Your task to perform on an android device: Search for "jbl charge 4" on ebay.com, select the first entry, and add it to the cart. Image 0: 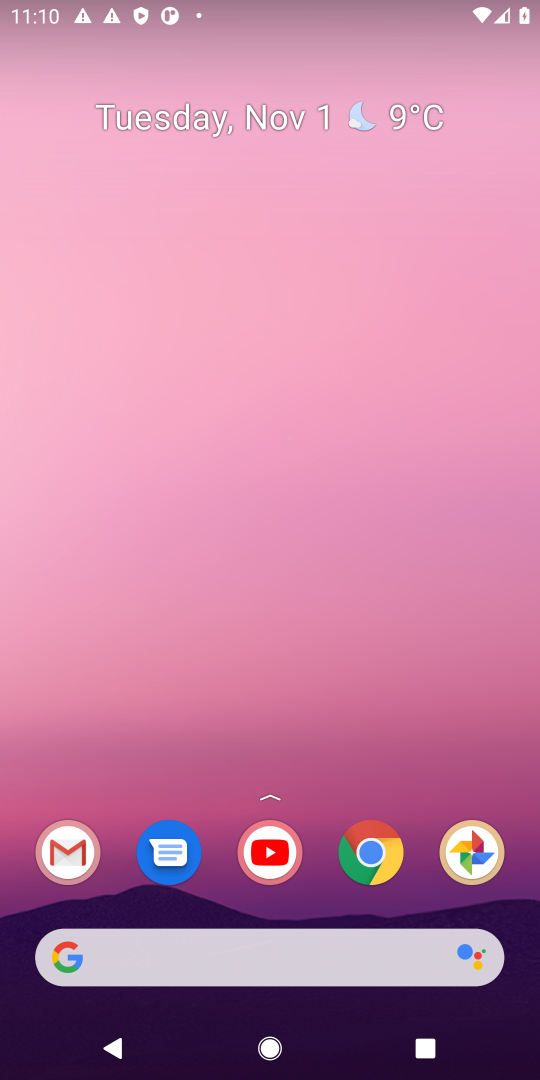
Step 0: drag from (250, 932) to (253, 202)
Your task to perform on an android device: Search for "jbl charge 4" on ebay.com, select the first entry, and add it to the cart. Image 1: 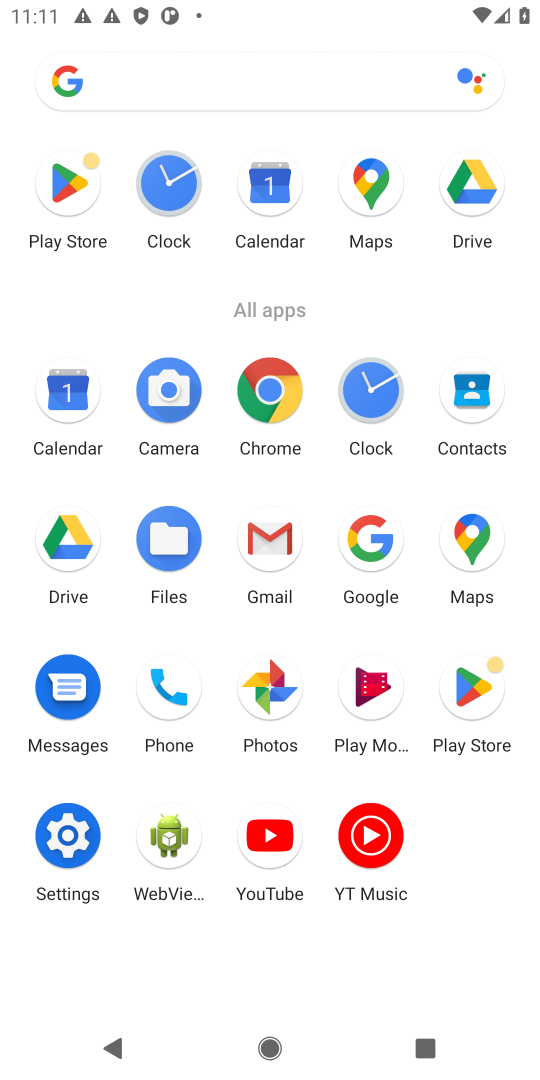
Step 1: click (387, 583)
Your task to perform on an android device: Search for "jbl charge 4" on ebay.com, select the first entry, and add it to the cart. Image 2: 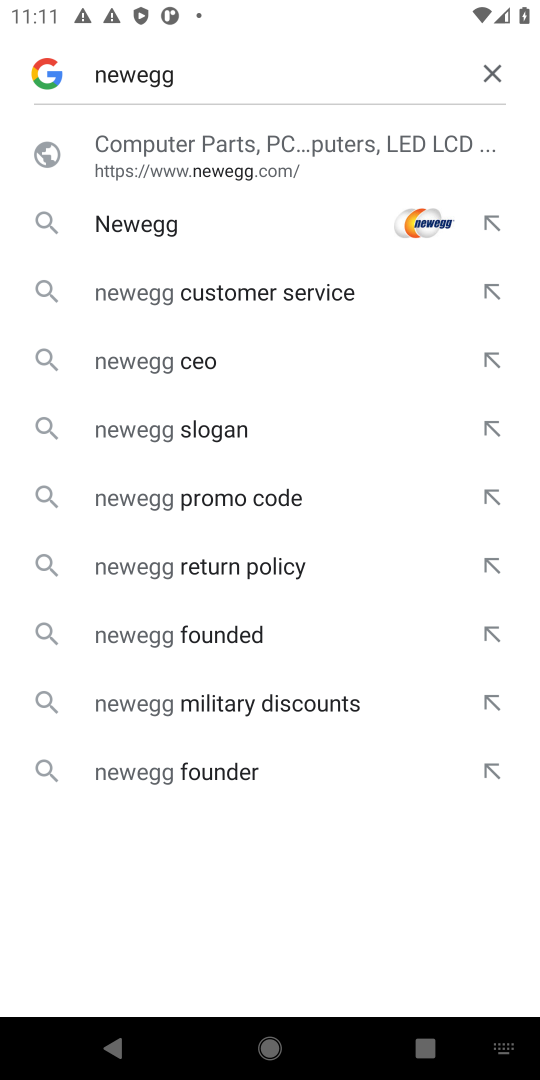
Step 2: click (484, 64)
Your task to perform on an android device: Search for "jbl charge 4" on ebay.com, select the first entry, and add it to the cart. Image 3: 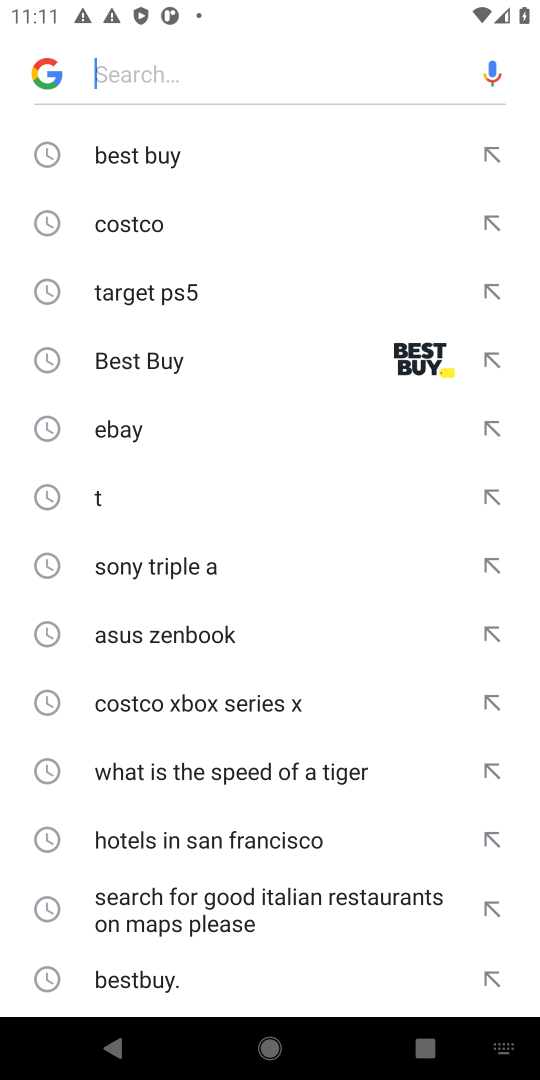
Step 3: click (173, 430)
Your task to perform on an android device: Search for "jbl charge 4" on ebay.com, select the first entry, and add it to the cart. Image 4: 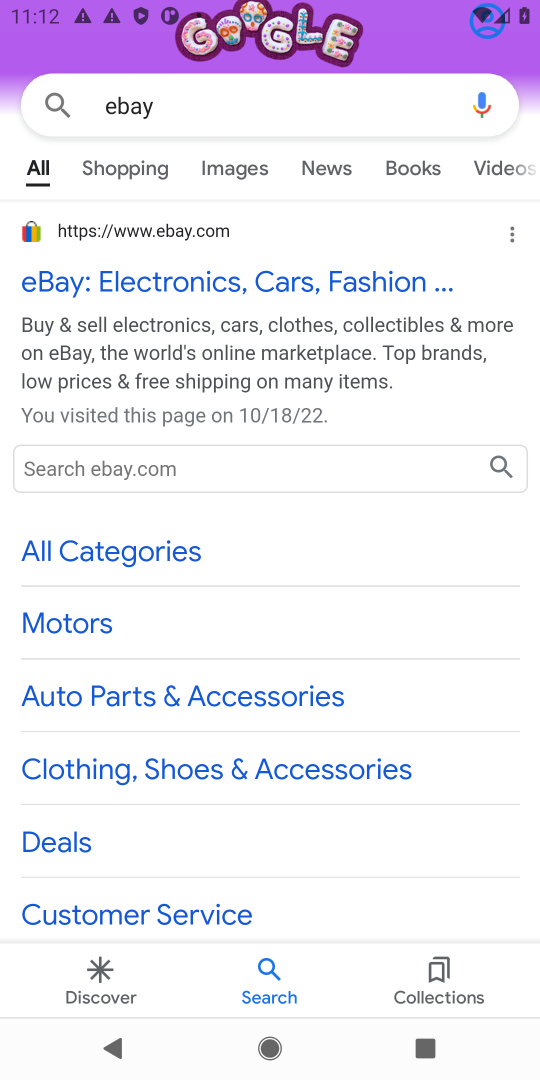
Step 4: click (279, 113)
Your task to perform on an android device: Search for "jbl charge 4" on ebay.com, select the first entry, and add it to the cart. Image 5: 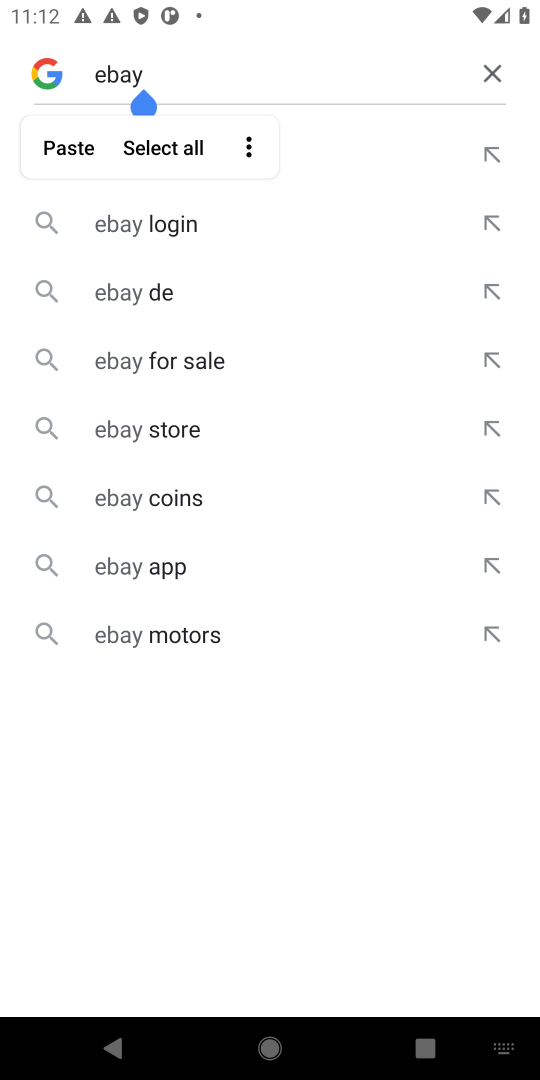
Step 5: click (496, 63)
Your task to perform on an android device: Search for "jbl charge 4" on ebay.com, select the first entry, and add it to the cart. Image 6: 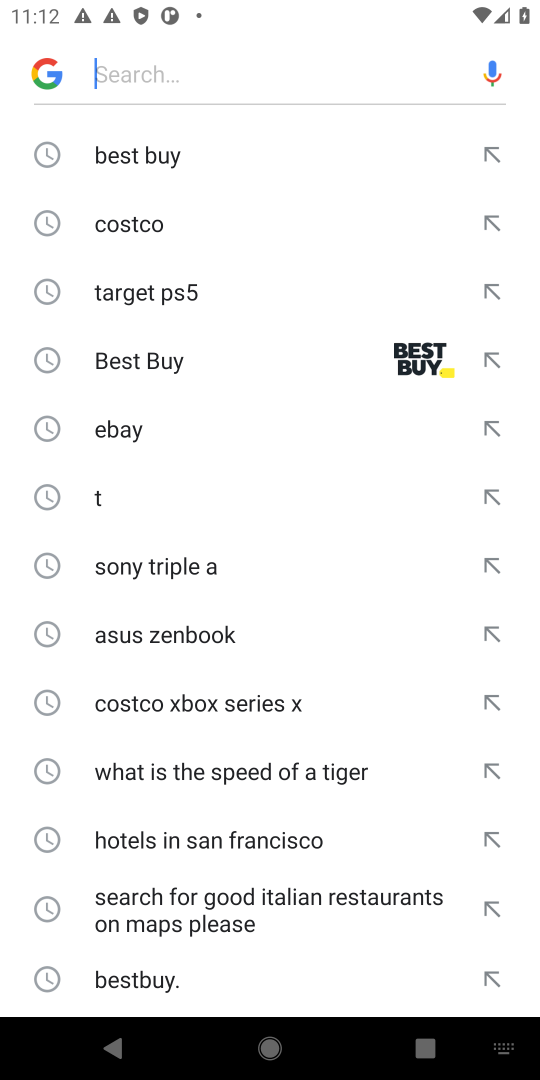
Step 6: type "ebay"
Your task to perform on an android device: Search for "jbl charge 4" on ebay.com, select the first entry, and add it to the cart. Image 7: 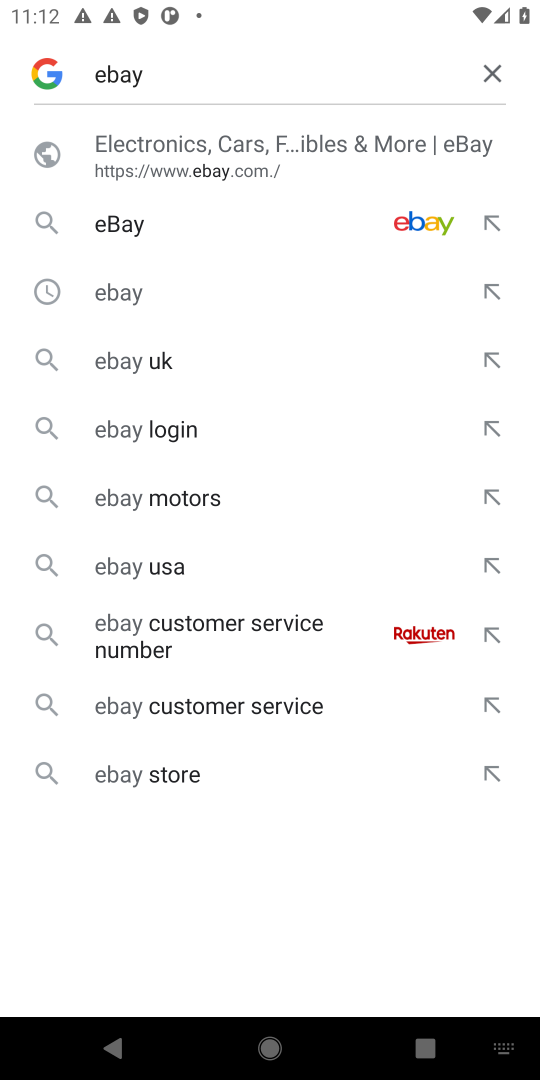
Step 7: click (218, 176)
Your task to perform on an android device: Search for "jbl charge 4" on ebay.com, select the first entry, and add it to the cart. Image 8: 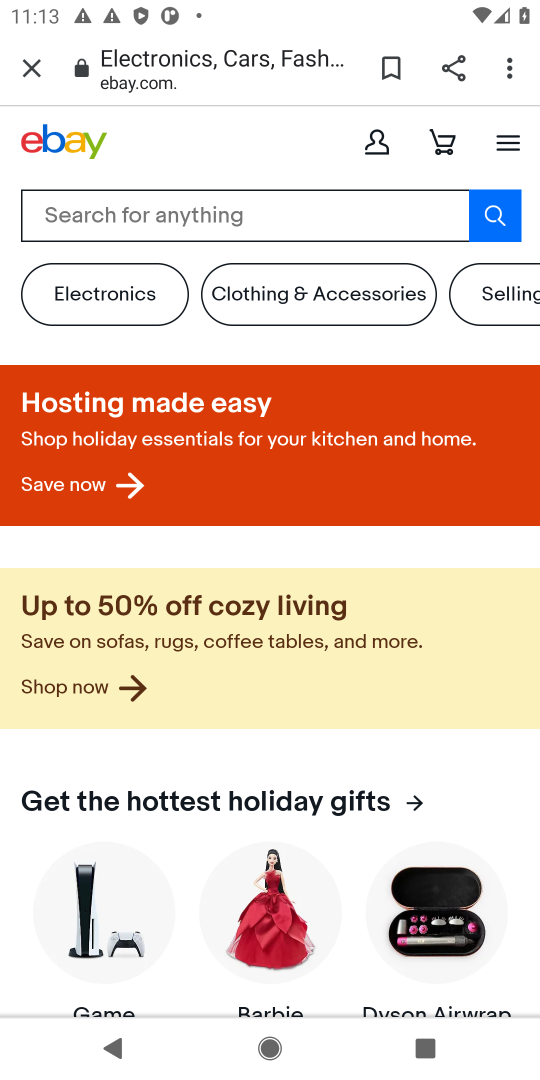
Step 8: click (164, 221)
Your task to perform on an android device: Search for "jbl charge 4" on ebay.com, select the first entry, and add it to the cart. Image 9: 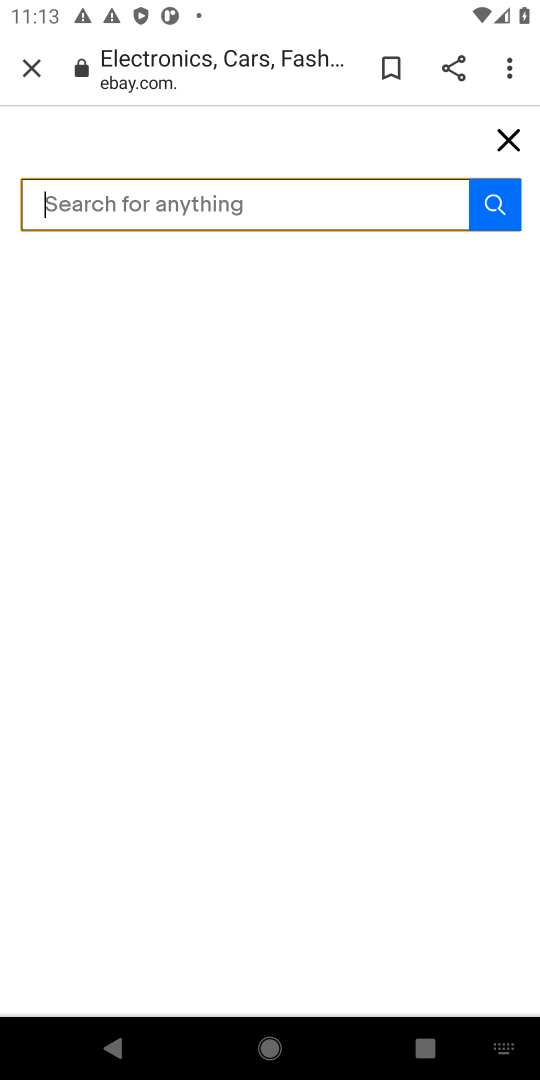
Step 9: type "jbl charge 4"
Your task to perform on an android device: Search for "jbl charge 4" on ebay.com, select the first entry, and add it to the cart. Image 10: 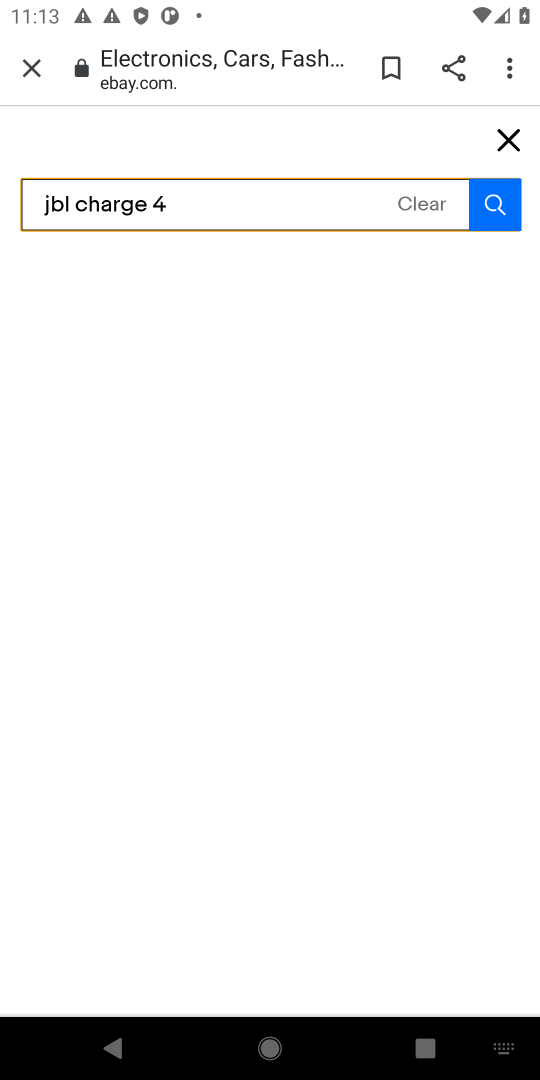
Step 10: click (506, 201)
Your task to perform on an android device: Search for "jbl charge 4" on ebay.com, select the first entry, and add it to the cart. Image 11: 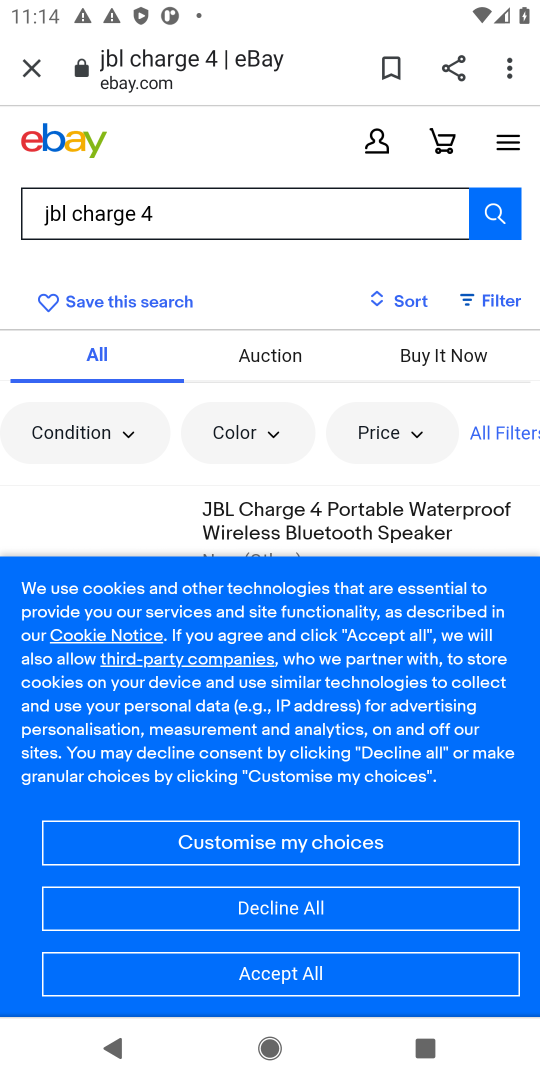
Step 11: click (292, 983)
Your task to perform on an android device: Search for "jbl charge 4" on ebay.com, select the first entry, and add it to the cart. Image 12: 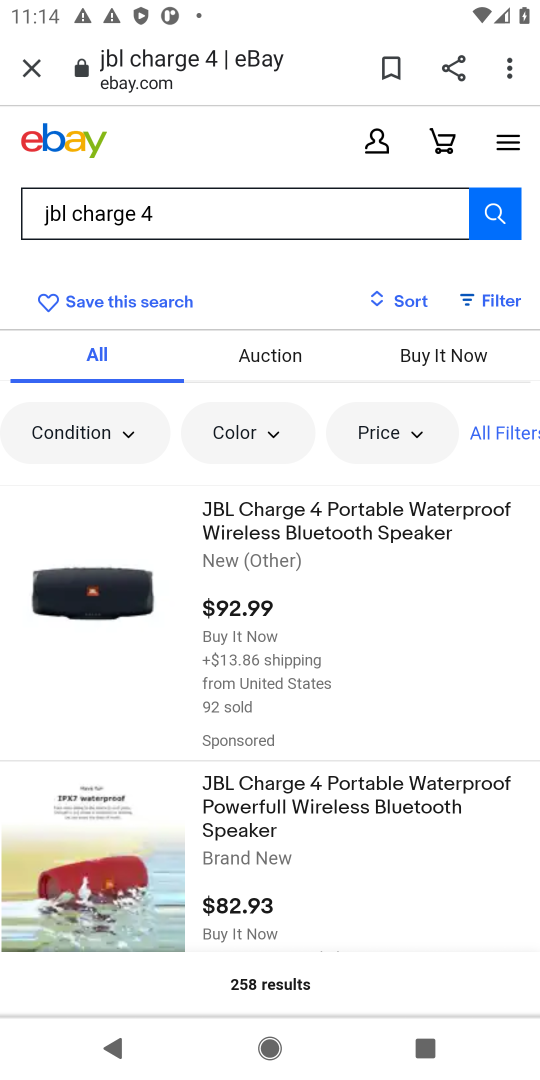
Step 12: click (237, 623)
Your task to perform on an android device: Search for "jbl charge 4" on ebay.com, select the first entry, and add it to the cart. Image 13: 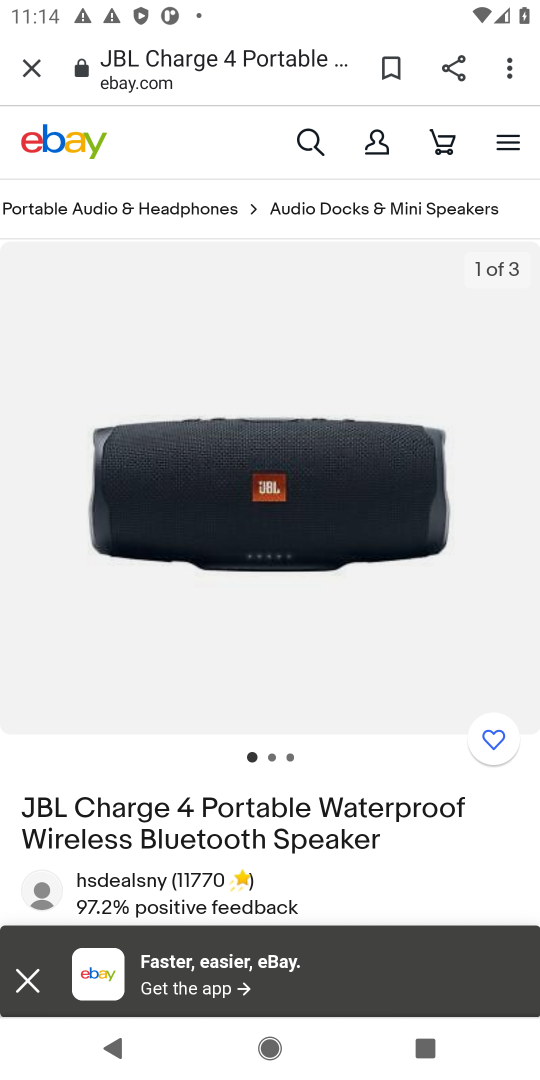
Step 13: drag from (285, 778) to (266, 254)
Your task to perform on an android device: Search for "jbl charge 4" on ebay.com, select the first entry, and add it to the cart. Image 14: 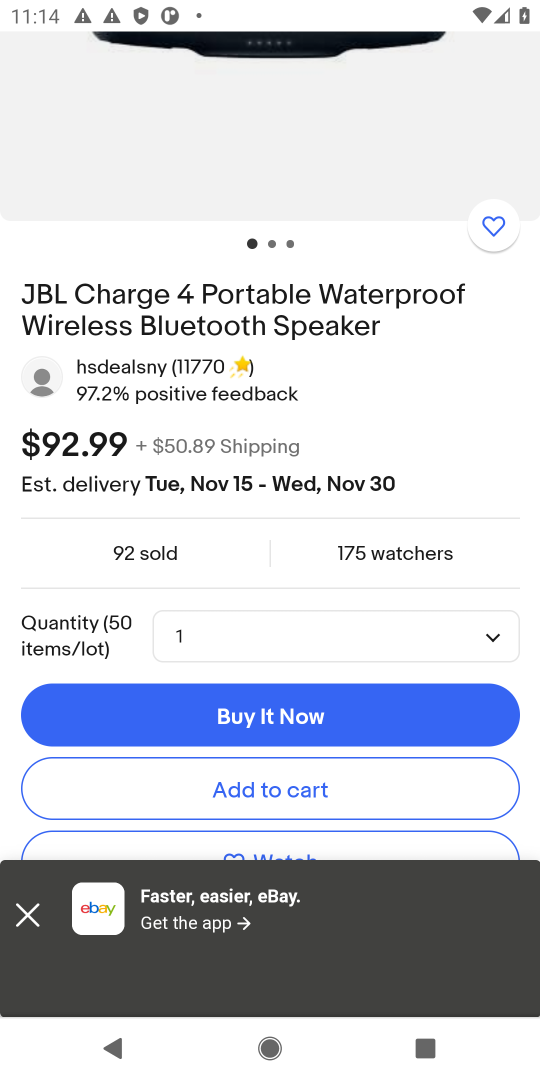
Step 14: click (317, 791)
Your task to perform on an android device: Search for "jbl charge 4" on ebay.com, select the first entry, and add it to the cart. Image 15: 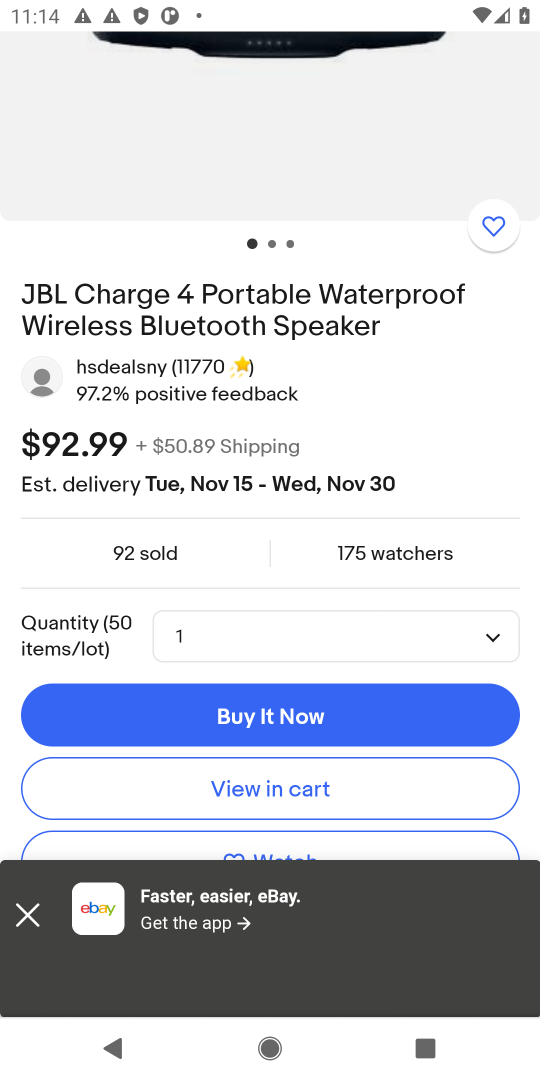
Step 15: click (25, 908)
Your task to perform on an android device: Search for "jbl charge 4" on ebay.com, select the first entry, and add it to the cart. Image 16: 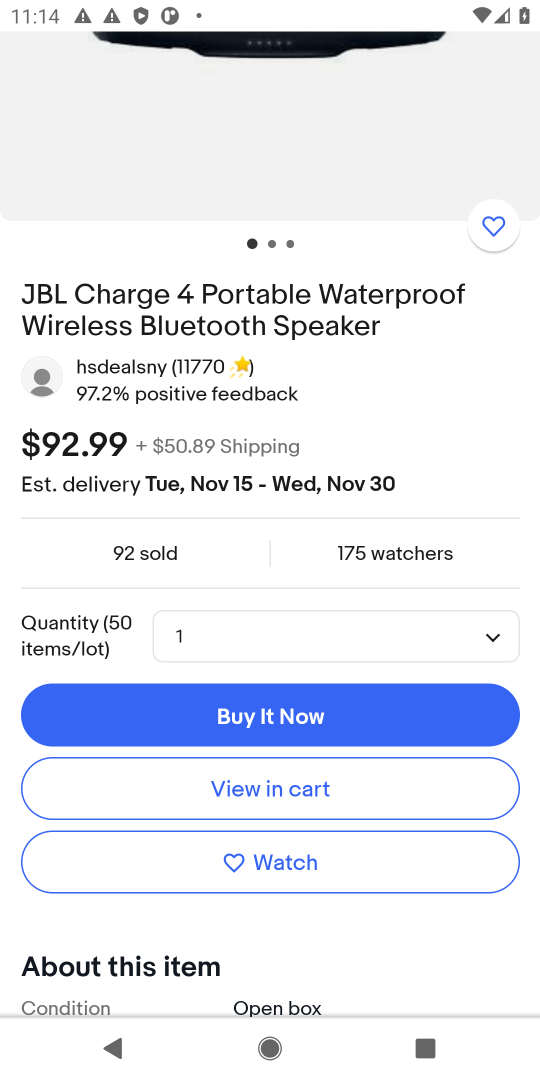
Step 16: task complete